Your task to perform on an android device: Open the Play Movies app and select the watchlist tab. Image 0: 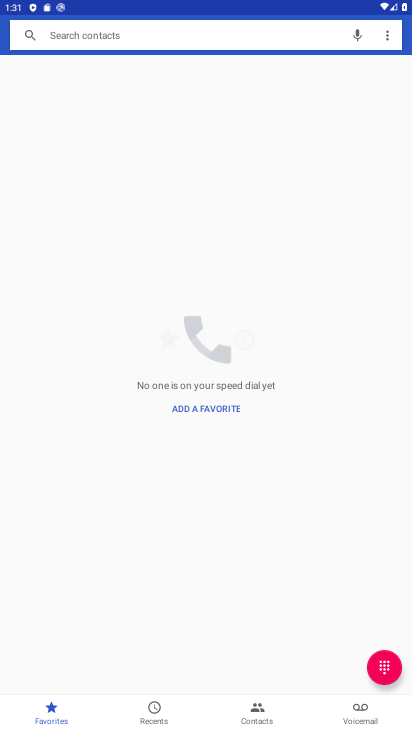
Step 0: press home button
Your task to perform on an android device: Open the Play Movies app and select the watchlist tab. Image 1: 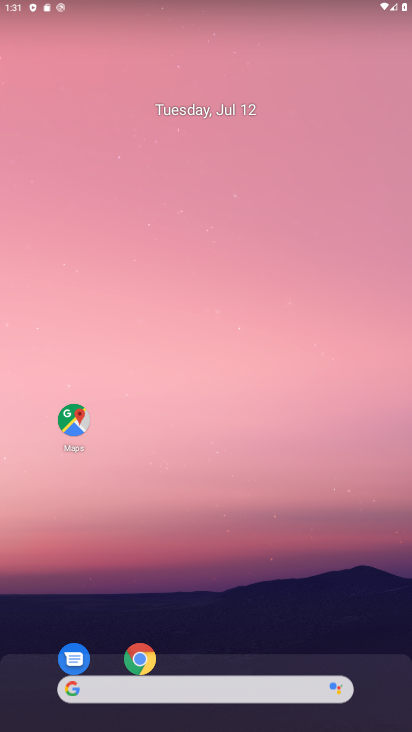
Step 1: drag from (216, 633) to (235, 117)
Your task to perform on an android device: Open the Play Movies app and select the watchlist tab. Image 2: 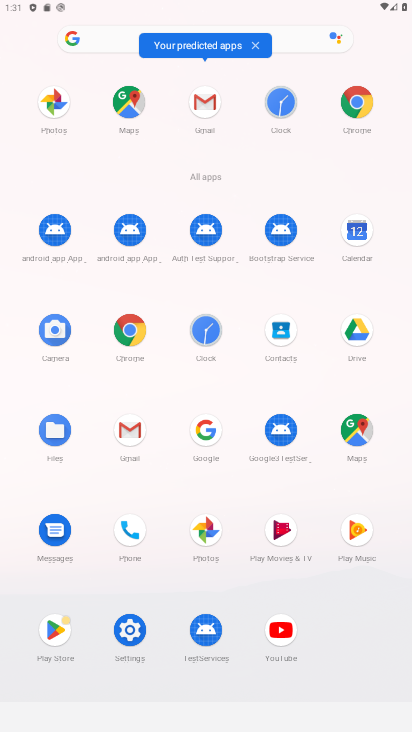
Step 2: click (283, 533)
Your task to perform on an android device: Open the Play Movies app and select the watchlist tab. Image 3: 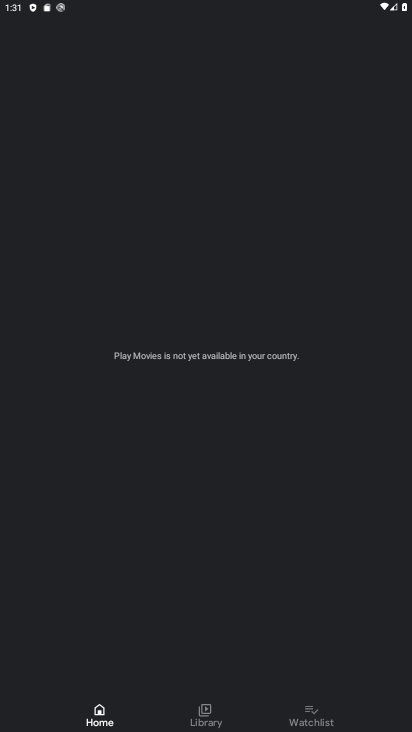
Step 3: click (315, 709)
Your task to perform on an android device: Open the Play Movies app and select the watchlist tab. Image 4: 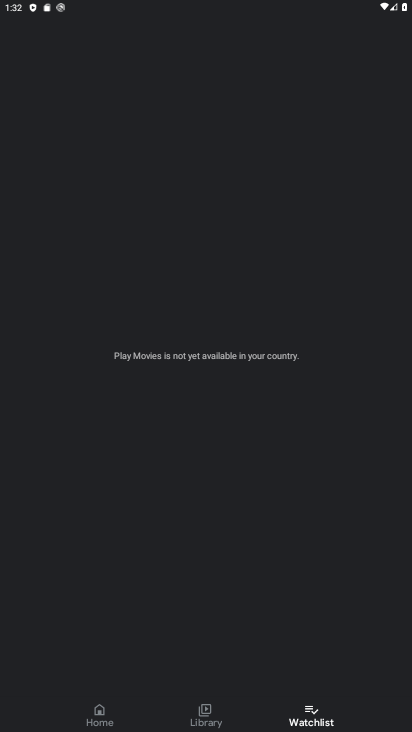
Step 4: task complete